Your task to perform on an android device: Open maps Image 0: 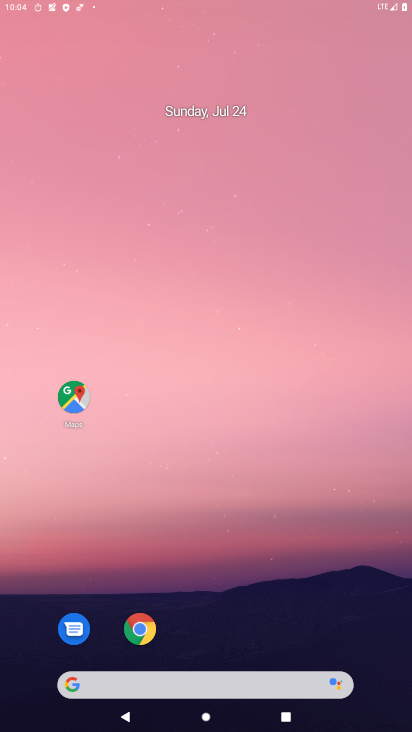
Step 0: press home button
Your task to perform on an android device: Open maps Image 1: 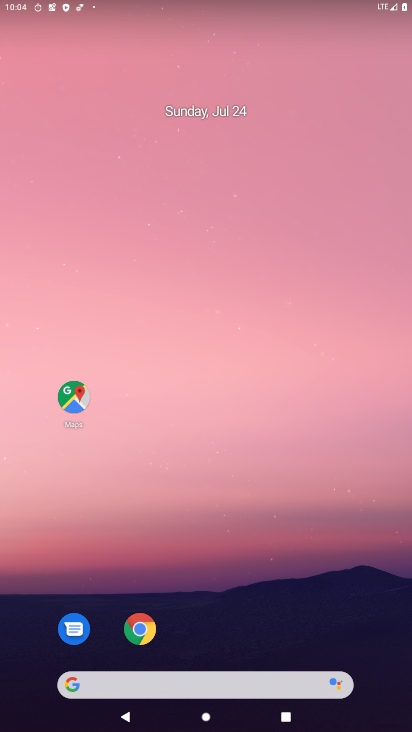
Step 1: press home button
Your task to perform on an android device: Open maps Image 2: 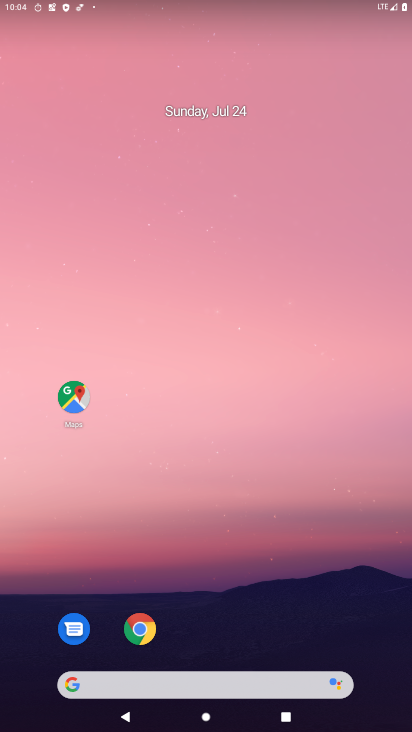
Step 2: click (67, 394)
Your task to perform on an android device: Open maps Image 3: 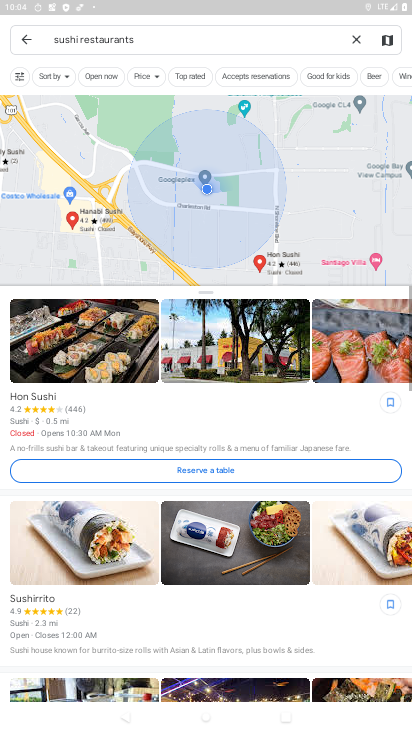
Step 3: click (22, 39)
Your task to perform on an android device: Open maps Image 4: 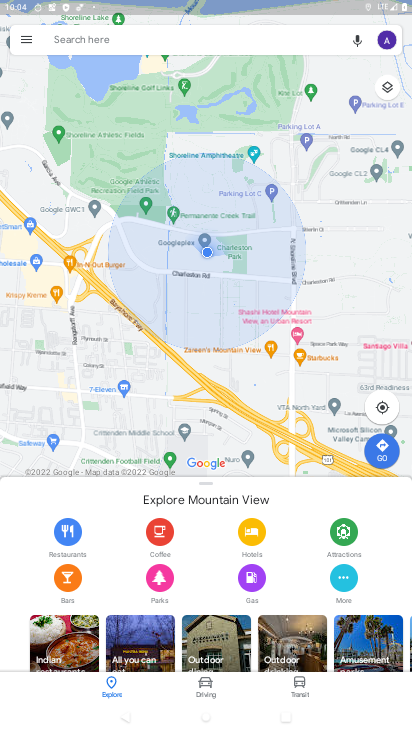
Step 4: task complete